Your task to perform on an android device: turn on location history Image 0: 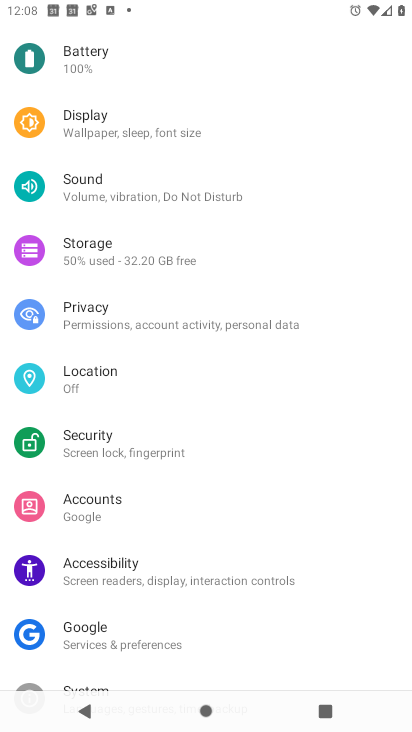
Step 0: press home button
Your task to perform on an android device: turn on location history Image 1: 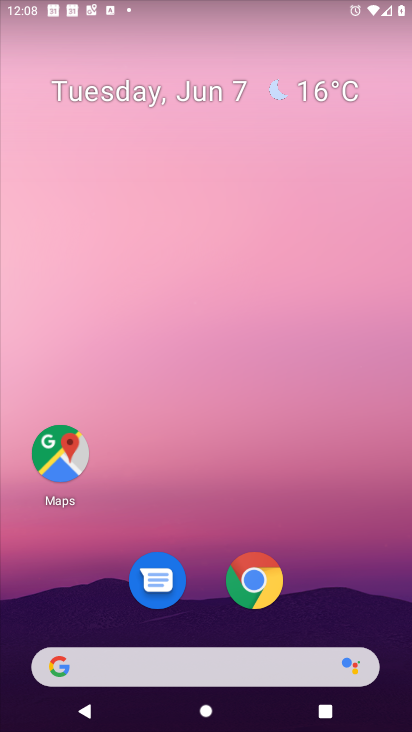
Step 1: drag from (347, 552) to (78, 0)
Your task to perform on an android device: turn on location history Image 2: 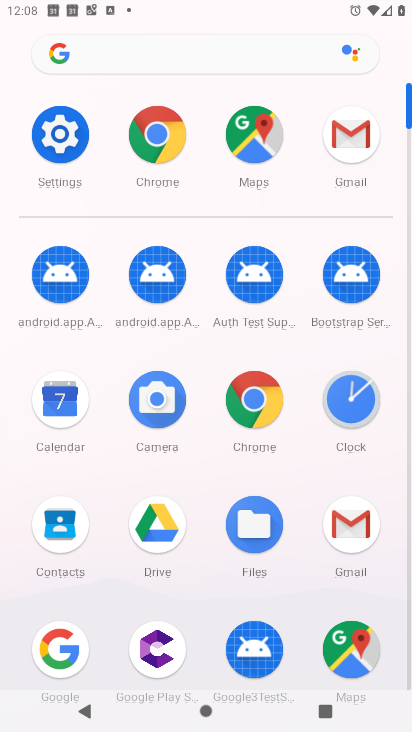
Step 2: click (60, 157)
Your task to perform on an android device: turn on location history Image 3: 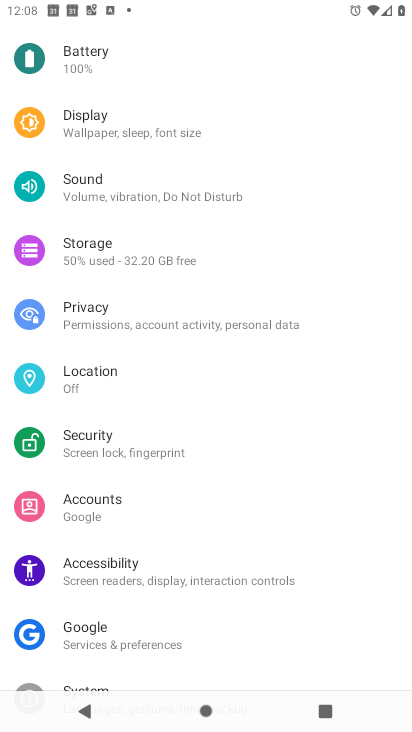
Step 3: drag from (170, 282) to (153, 495)
Your task to perform on an android device: turn on location history Image 4: 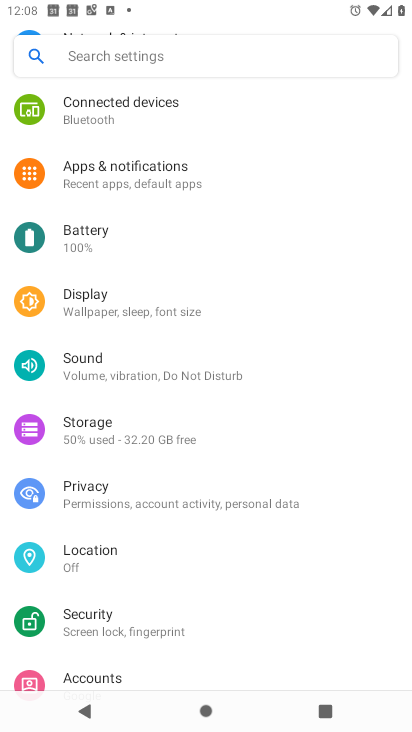
Step 4: click (80, 568)
Your task to perform on an android device: turn on location history Image 5: 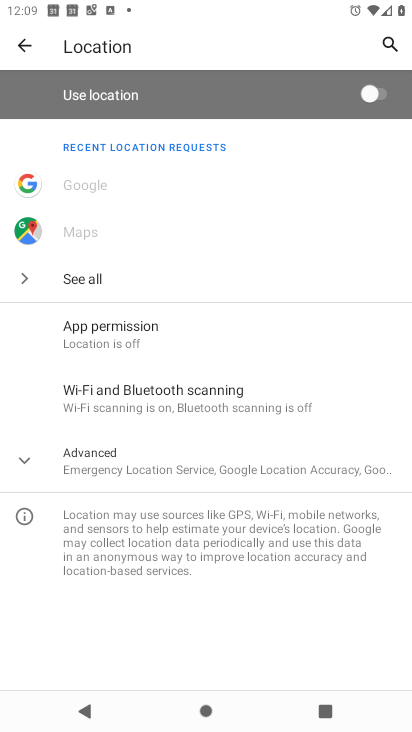
Step 5: click (367, 96)
Your task to perform on an android device: turn on location history Image 6: 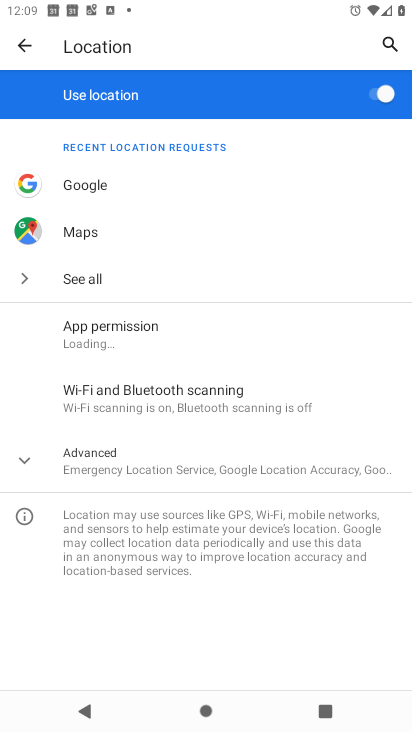
Step 6: task complete